Your task to perform on an android device: turn on improve location accuracy Image 0: 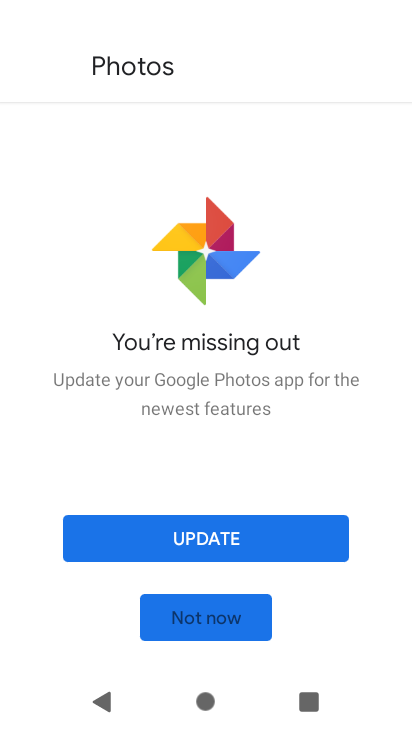
Step 0: press home button
Your task to perform on an android device: turn on improve location accuracy Image 1: 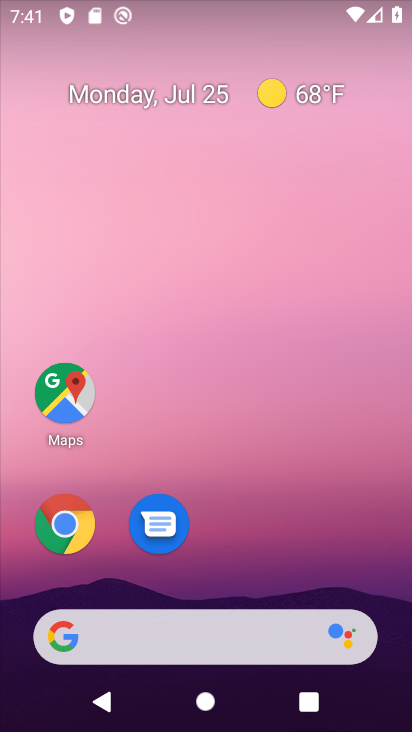
Step 1: drag from (264, 563) to (302, 36)
Your task to perform on an android device: turn on improve location accuracy Image 2: 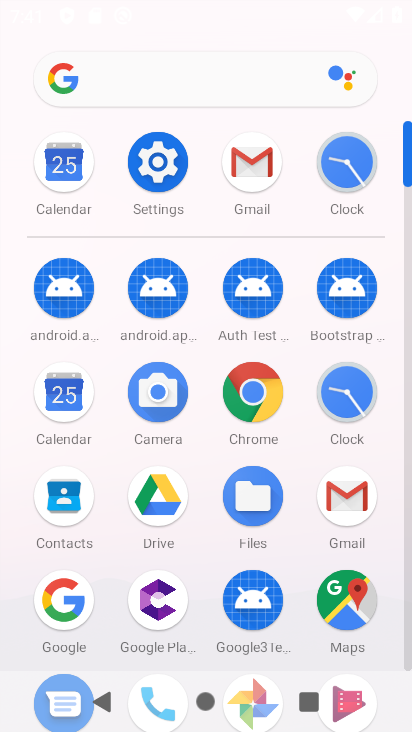
Step 2: click (168, 164)
Your task to perform on an android device: turn on improve location accuracy Image 3: 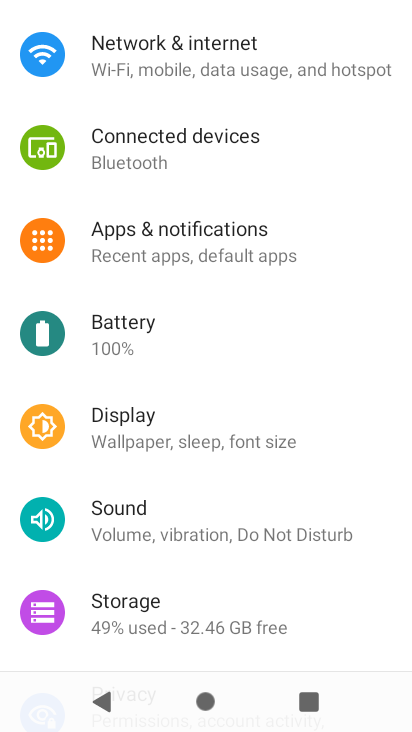
Step 3: drag from (158, 506) to (243, 46)
Your task to perform on an android device: turn on improve location accuracy Image 4: 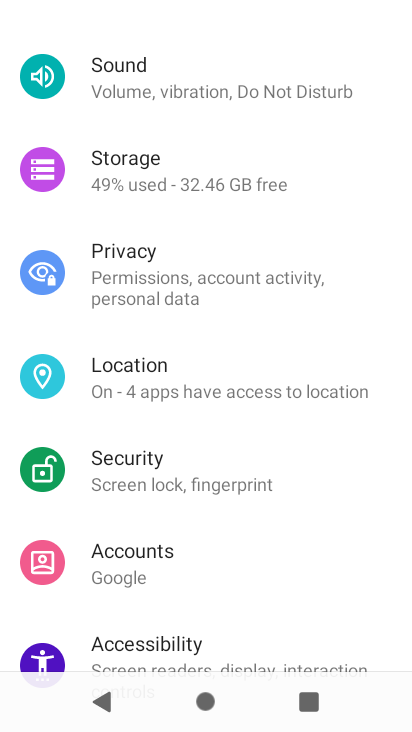
Step 4: click (164, 362)
Your task to perform on an android device: turn on improve location accuracy Image 5: 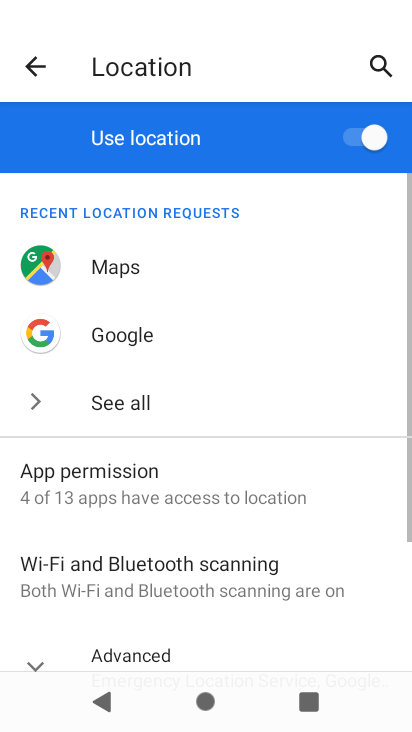
Step 5: drag from (170, 494) to (261, 266)
Your task to perform on an android device: turn on improve location accuracy Image 6: 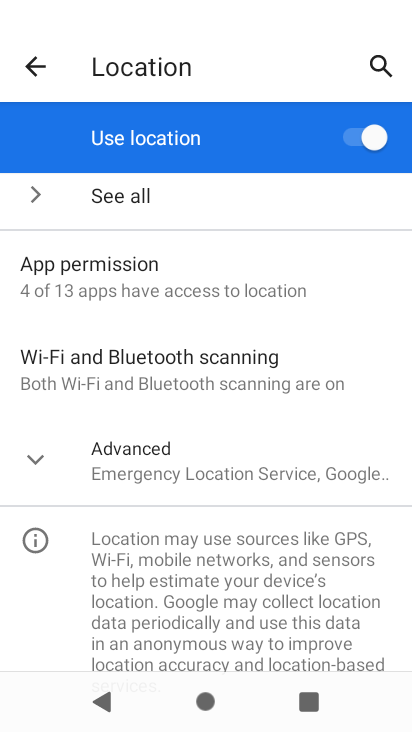
Step 6: click (46, 455)
Your task to perform on an android device: turn on improve location accuracy Image 7: 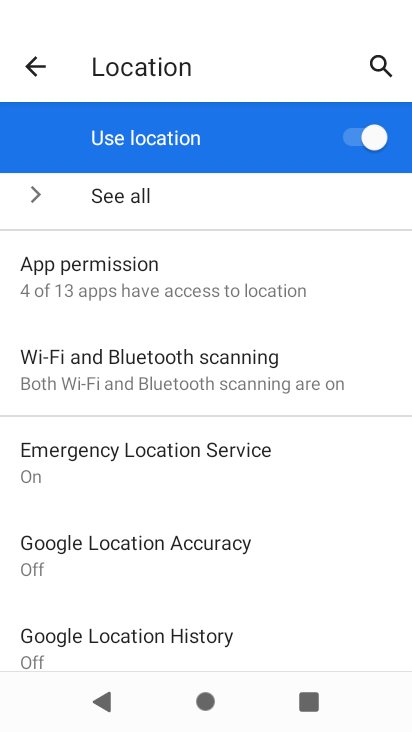
Step 7: click (126, 545)
Your task to perform on an android device: turn on improve location accuracy Image 8: 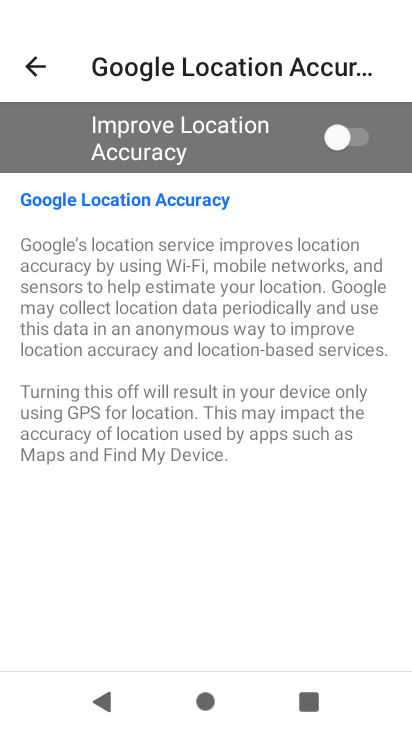
Step 8: click (341, 136)
Your task to perform on an android device: turn on improve location accuracy Image 9: 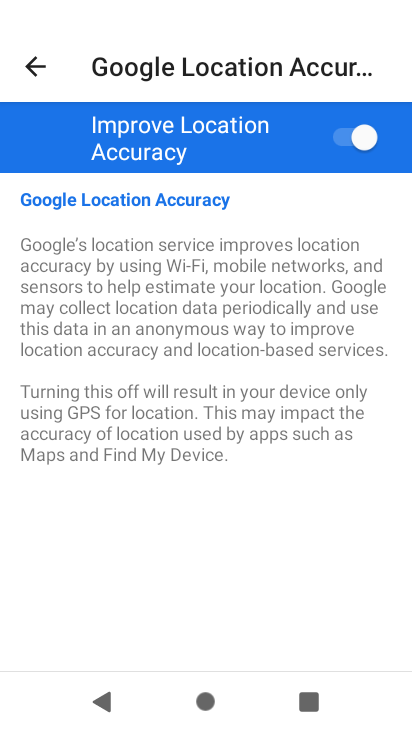
Step 9: task complete